Your task to perform on an android device: Open Amazon Image 0: 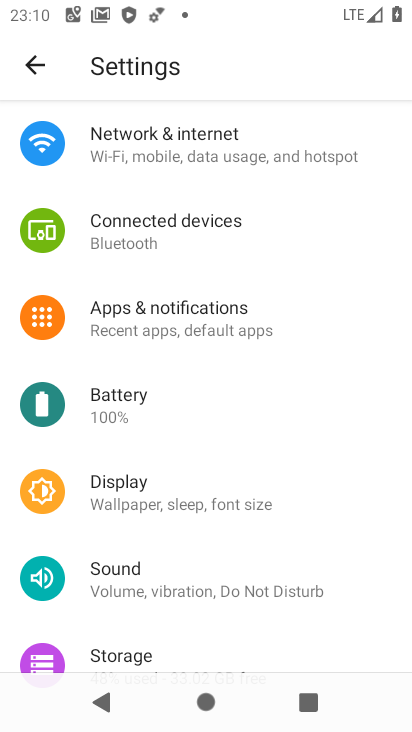
Step 0: press home button
Your task to perform on an android device: Open Amazon Image 1: 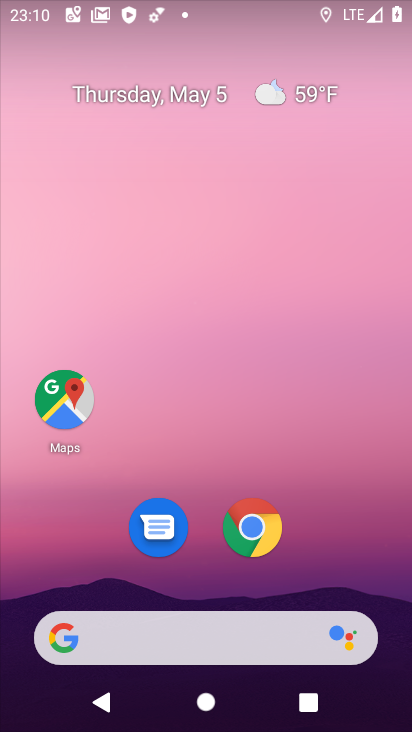
Step 1: click (256, 533)
Your task to perform on an android device: Open Amazon Image 2: 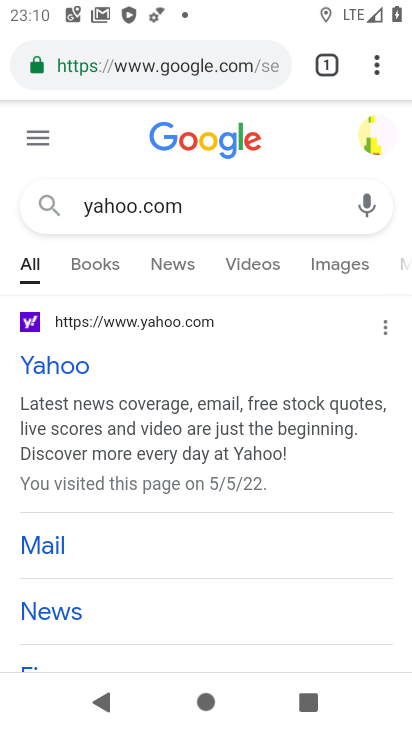
Step 2: click (144, 71)
Your task to perform on an android device: Open Amazon Image 3: 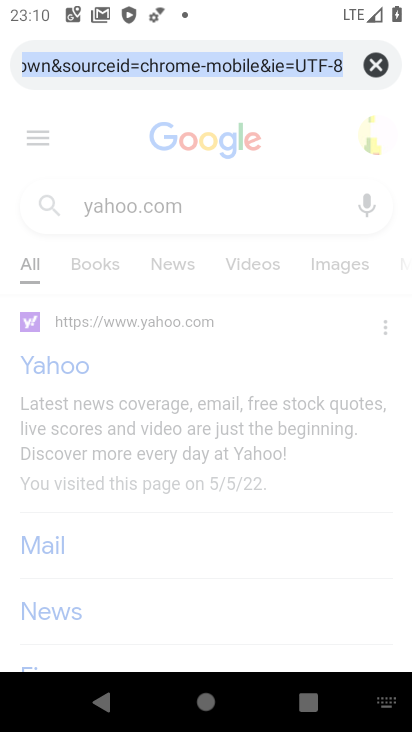
Step 3: type "amazon"
Your task to perform on an android device: Open Amazon Image 4: 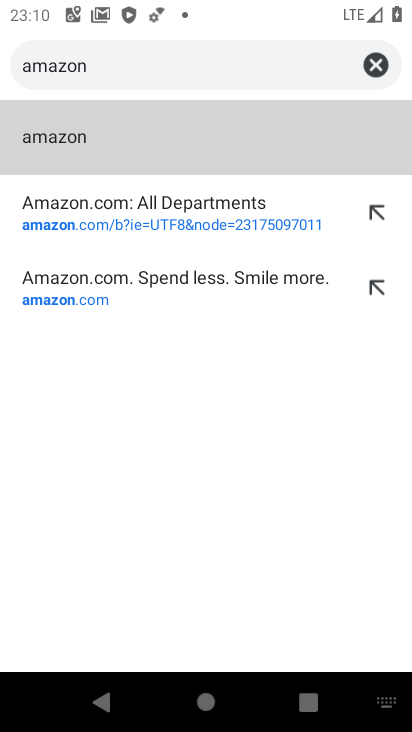
Step 4: click (156, 232)
Your task to perform on an android device: Open Amazon Image 5: 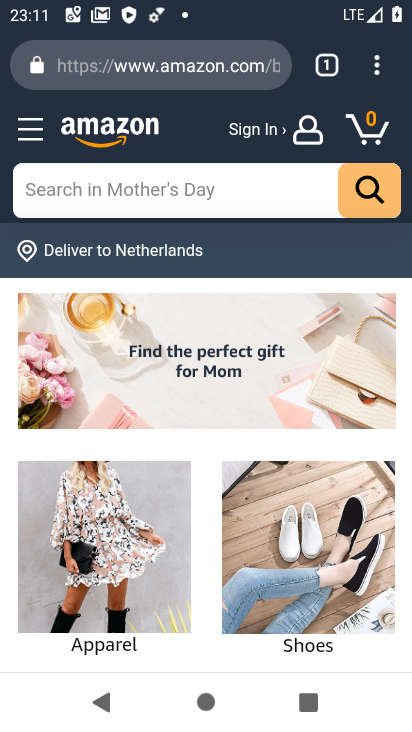
Step 5: task complete